Your task to perform on an android device: Open the phone app and click the voicemail tab. Image 0: 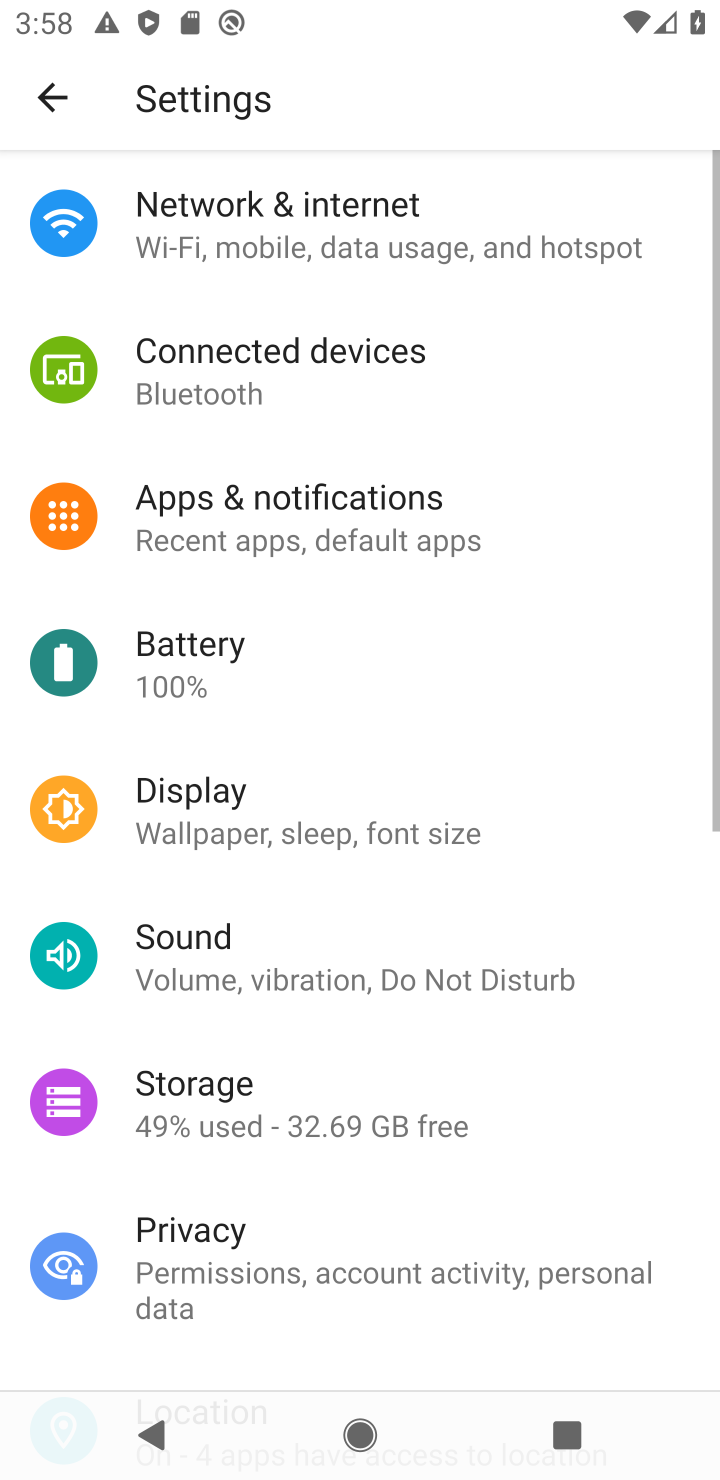
Step 0: press home button
Your task to perform on an android device: Open the phone app and click the voicemail tab. Image 1: 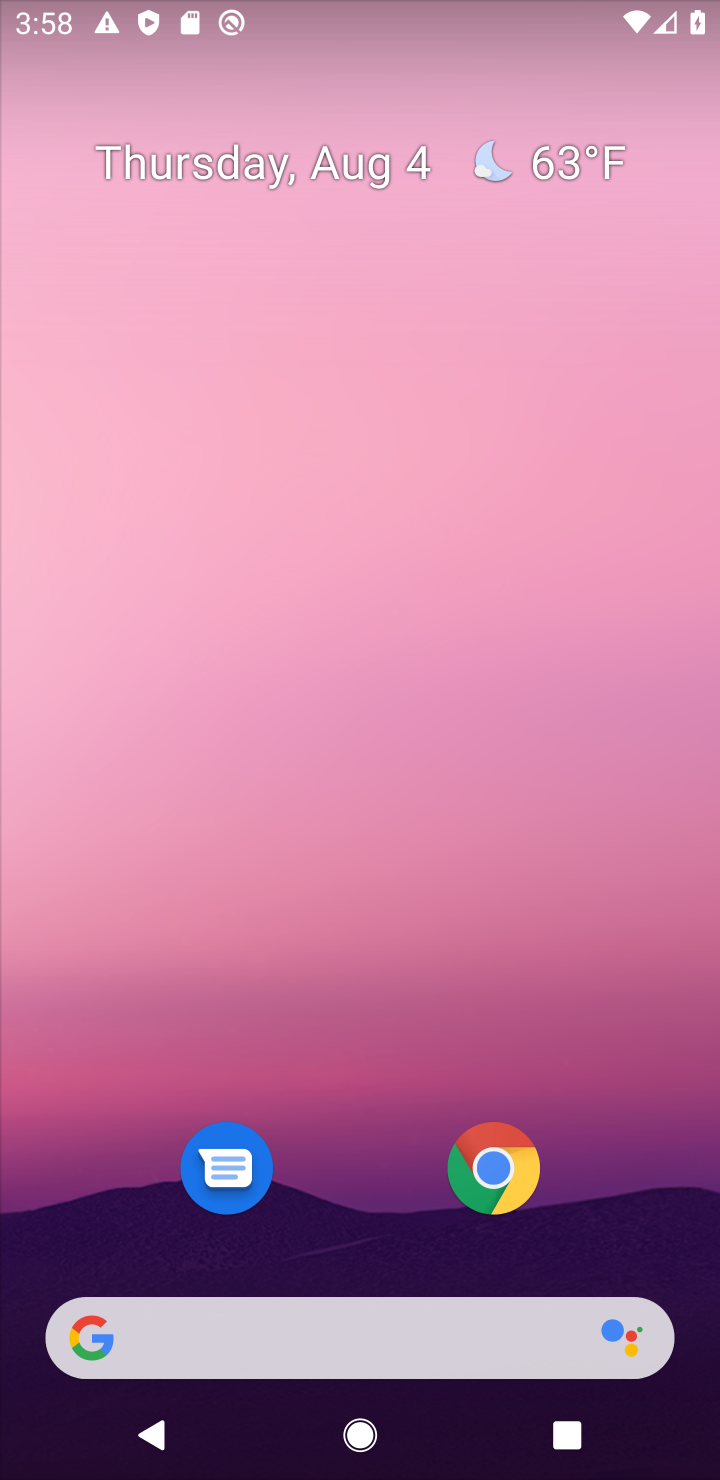
Step 1: drag from (316, 1260) to (208, 45)
Your task to perform on an android device: Open the phone app and click the voicemail tab. Image 2: 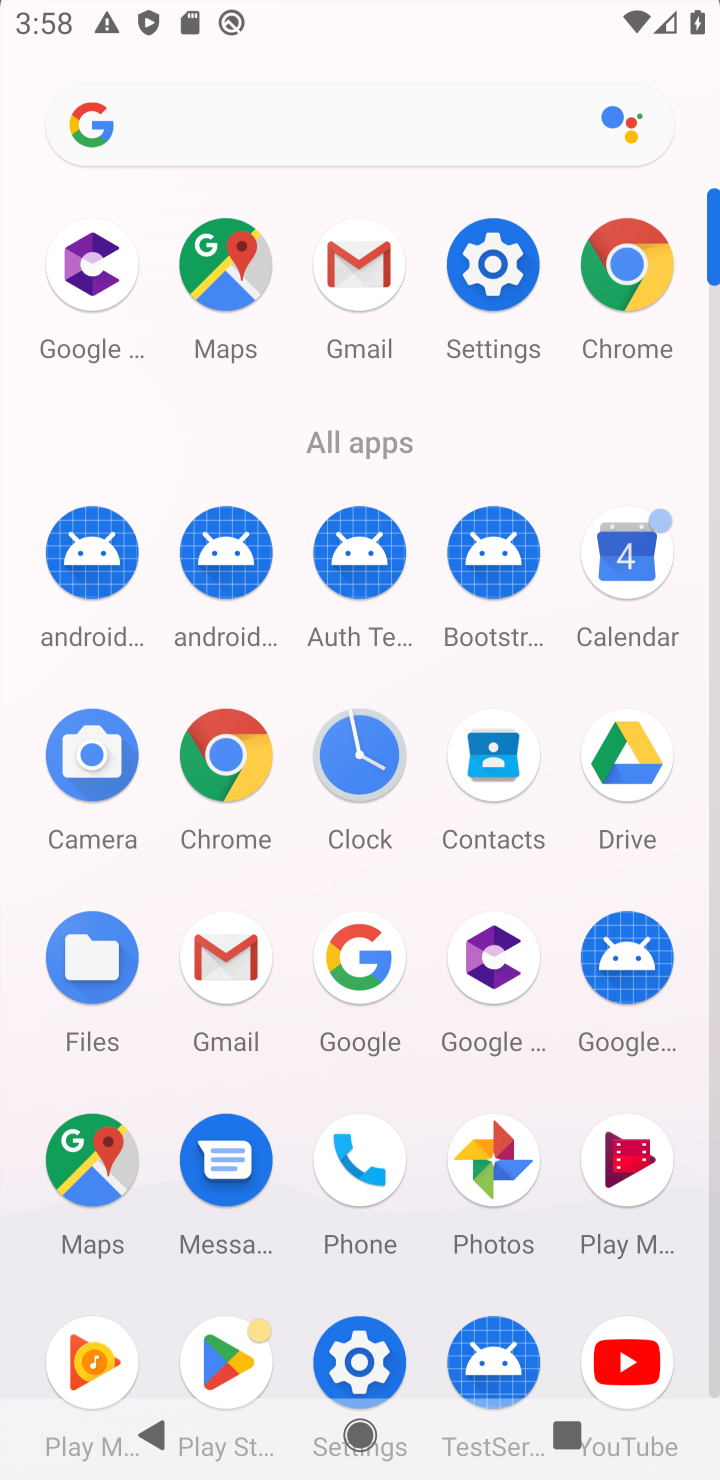
Step 2: click (355, 1156)
Your task to perform on an android device: Open the phone app and click the voicemail tab. Image 3: 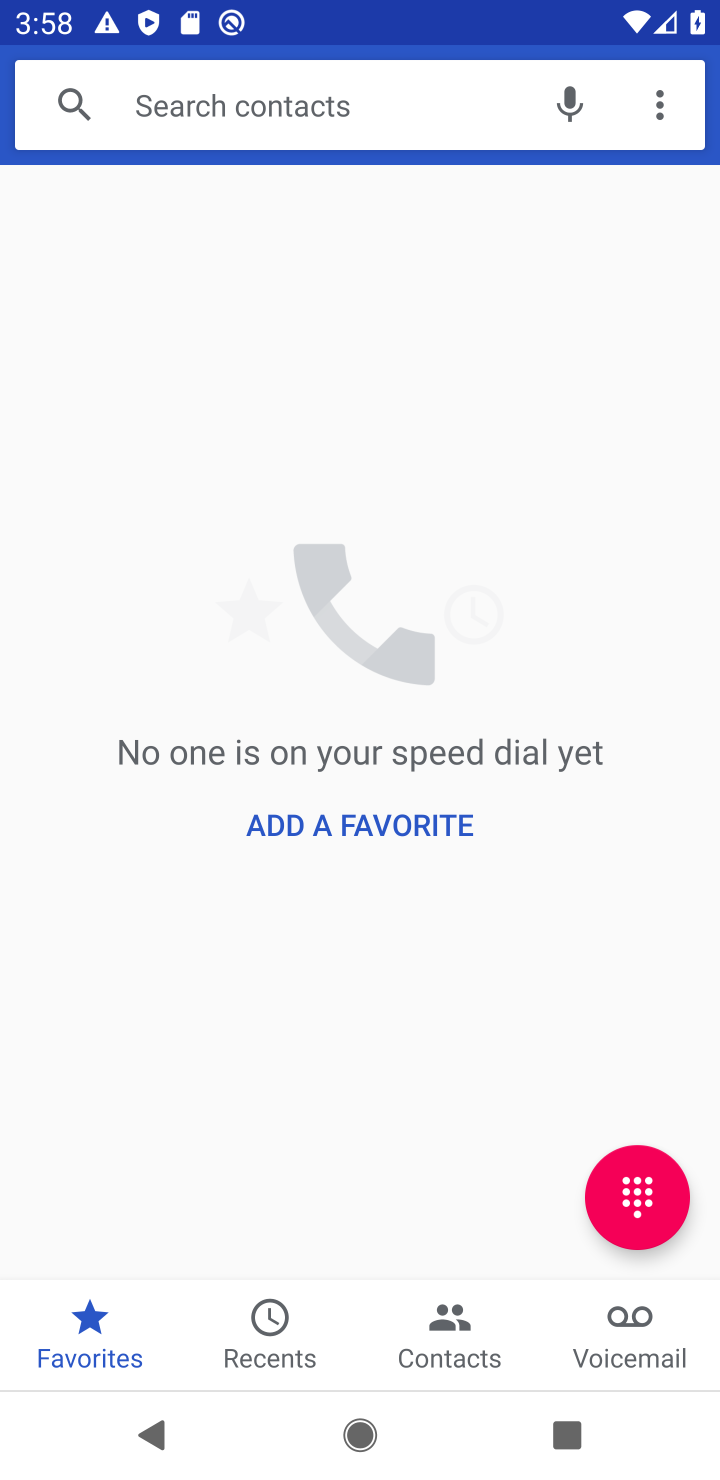
Step 3: click (548, 1345)
Your task to perform on an android device: Open the phone app and click the voicemail tab. Image 4: 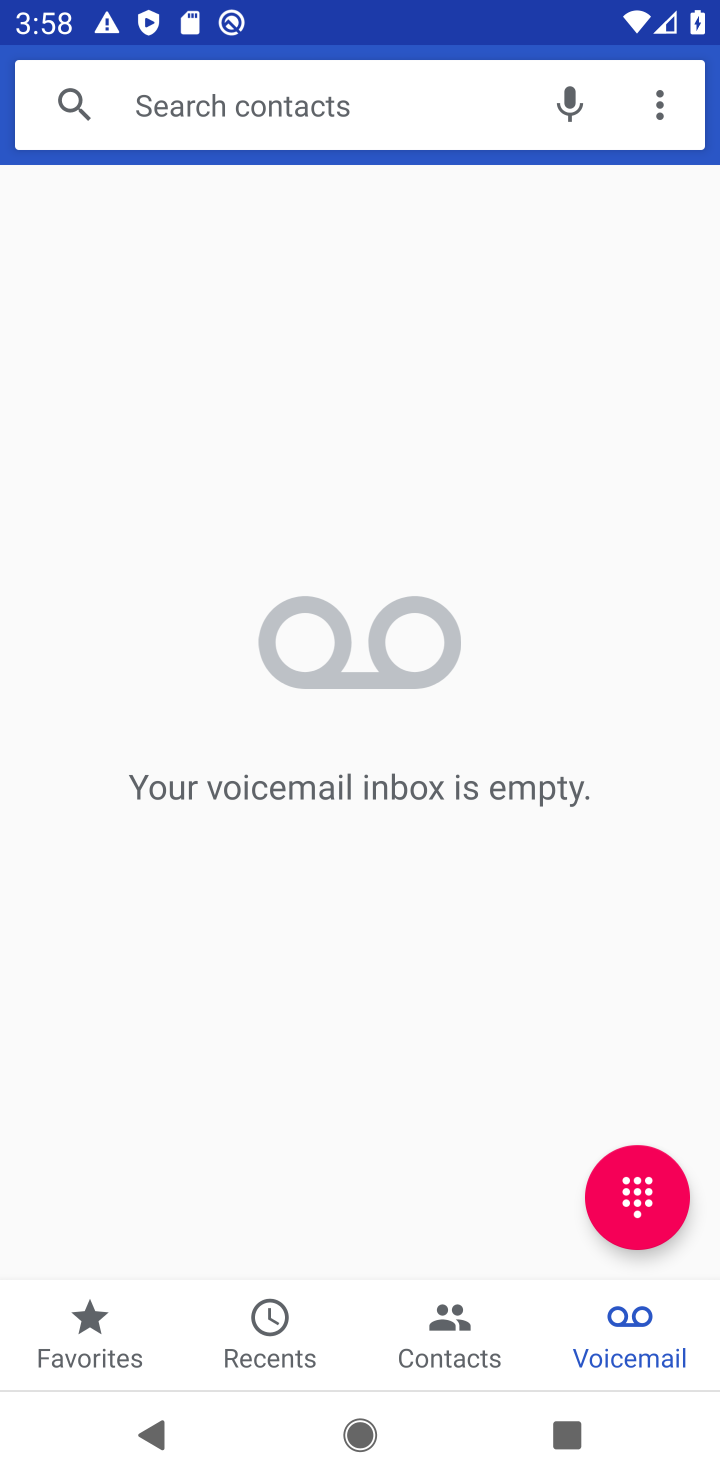
Step 4: task complete